Your task to perform on an android device: Set the phone to "Do not disturb". Image 0: 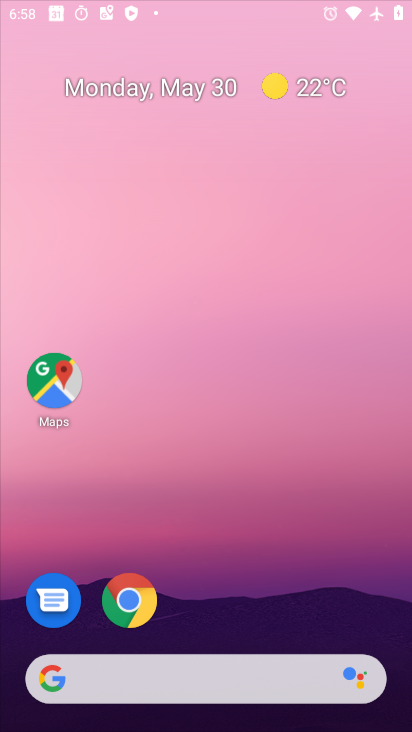
Step 0: press home button
Your task to perform on an android device: Set the phone to "Do not disturb". Image 1: 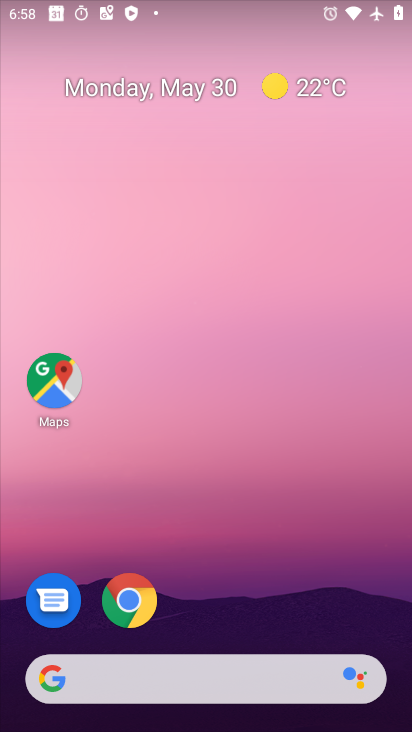
Step 1: drag from (201, 28) to (163, 381)
Your task to perform on an android device: Set the phone to "Do not disturb". Image 2: 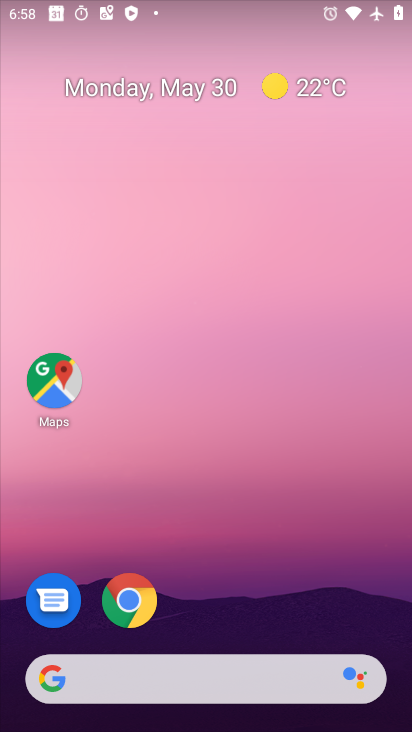
Step 2: drag from (225, 62) to (225, 415)
Your task to perform on an android device: Set the phone to "Do not disturb". Image 3: 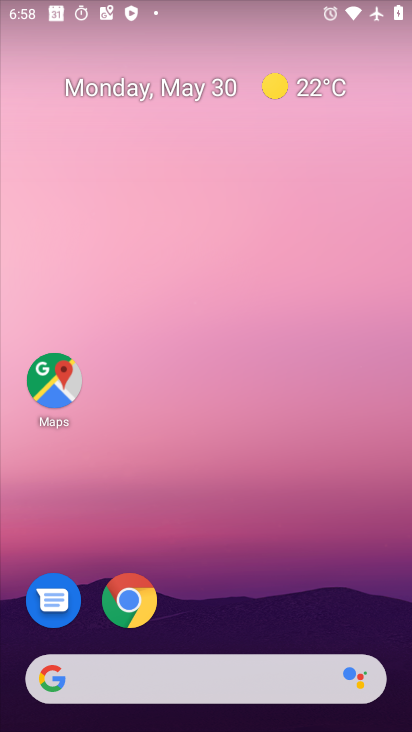
Step 3: drag from (210, 11) to (225, 315)
Your task to perform on an android device: Set the phone to "Do not disturb". Image 4: 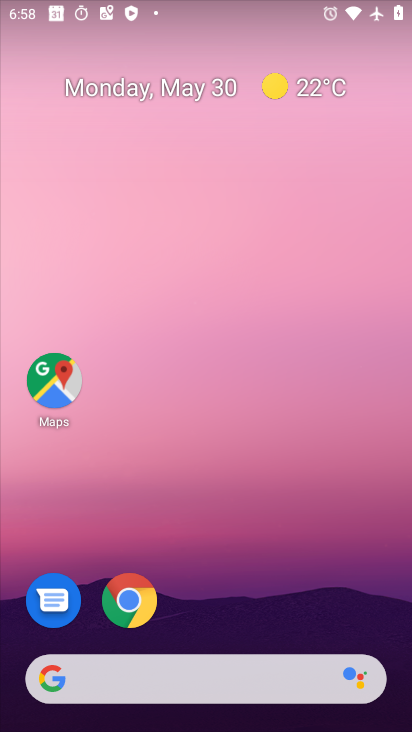
Step 4: drag from (231, 59) to (212, 427)
Your task to perform on an android device: Set the phone to "Do not disturb". Image 5: 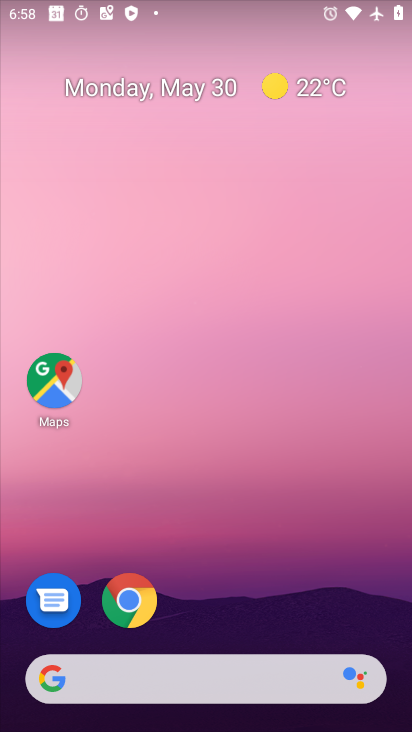
Step 5: drag from (195, 4) to (233, 474)
Your task to perform on an android device: Set the phone to "Do not disturb". Image 6: 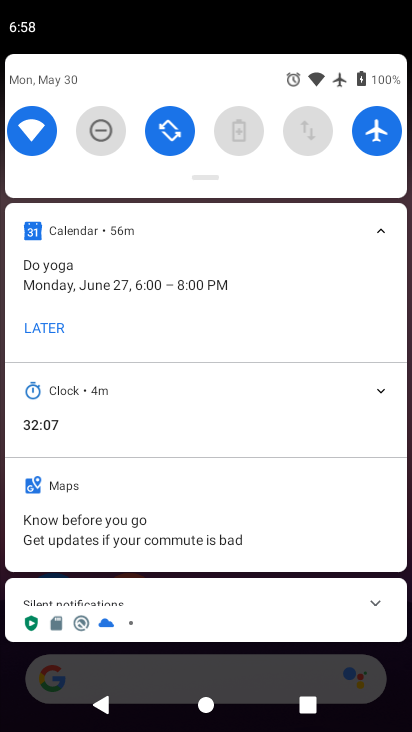
Step 6: drag from (189, 186) to (206, 439)
Your task to perform on an android device: Set the phone to "Do not disturb". Image 7: 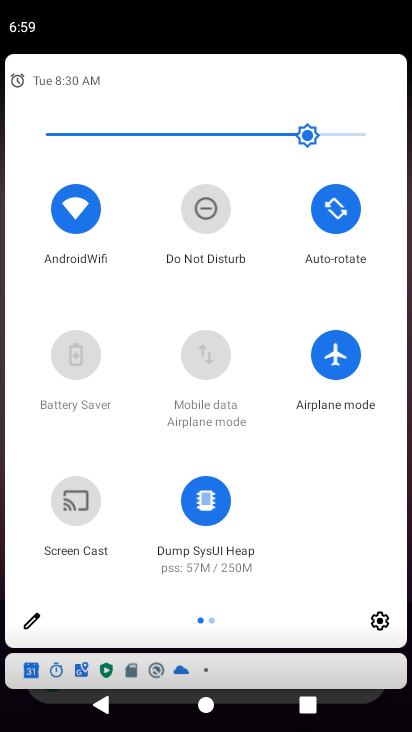
Step 7: click (196, 206)
Your task to perform on an android device: Set the phone to "Do not disturb". Image 8: 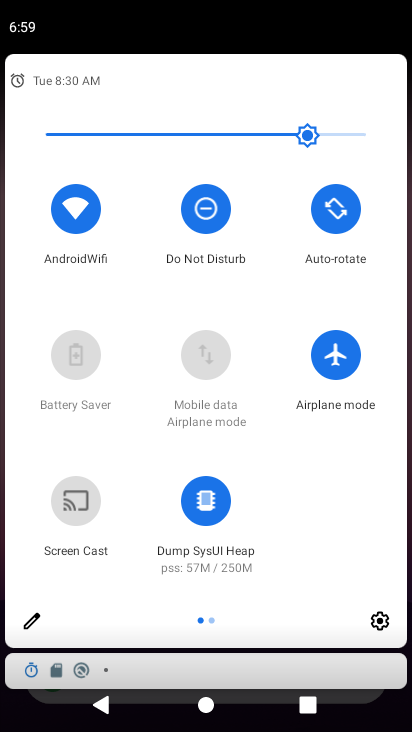
Step 8: task complete